Your task to perform on an android device: Open calendar and show me the first week of next month Image 0: 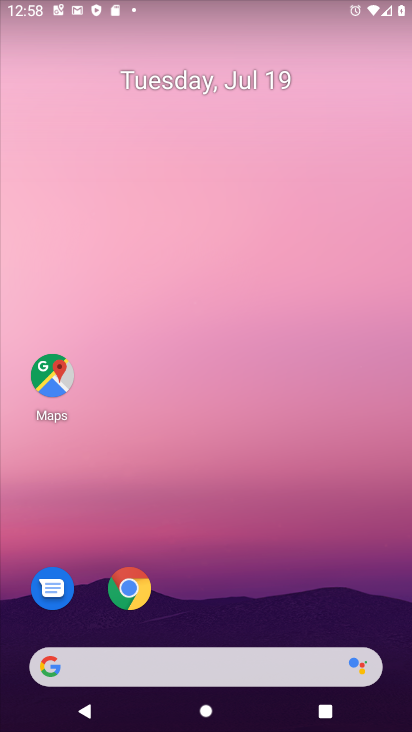
Step 0: drag from (396, 649) to (235, 11)
Your task to perform on an android device: Open calendar and show me the first week of next month Image 1: 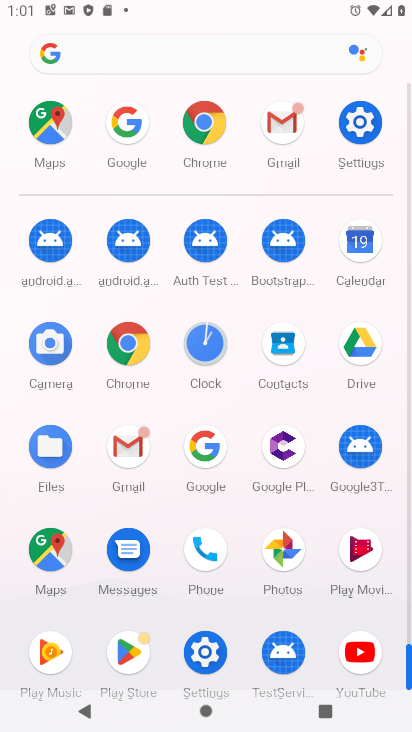
Step 1: click (365, 249)
Your task to perform on an android device: Open calendar and show me the first week of next month Image 2: 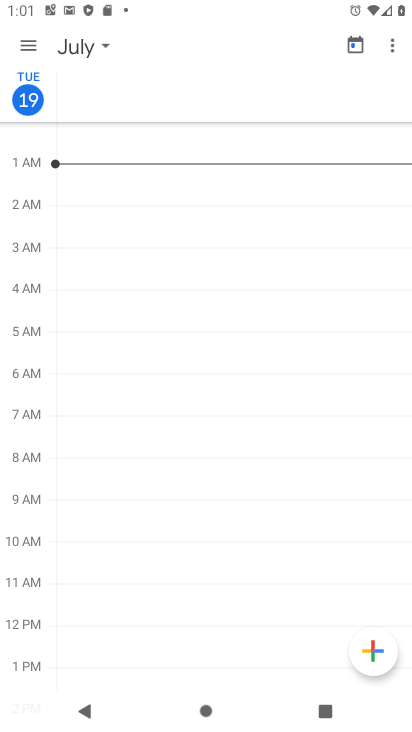
Step 2: click (87, 56)
Your task to perform on an android device: Open calendar and show me the first week of next month Image 3: 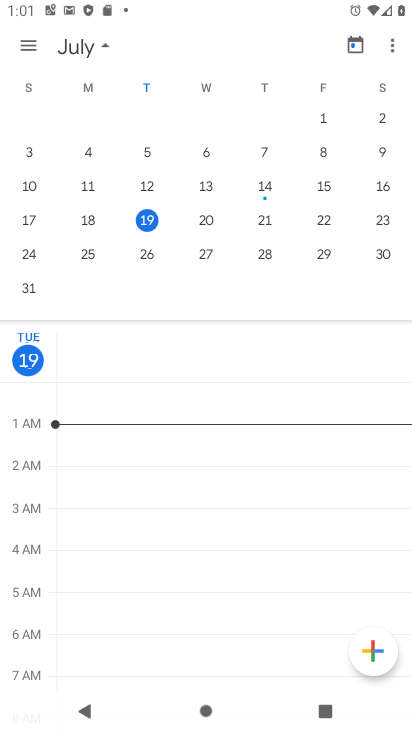
Step 3: drag from (389, 194) to (50, 205)
Your task to perform on an android device: Open calendar and show me the first week of next month Image 4: 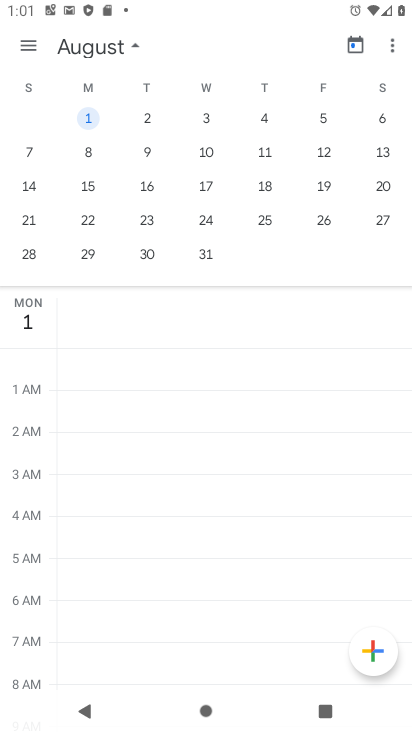
Step 4: click (34, 151)
Your task to perform on an android device: Open calendar and show me the first week of next month Image 5: 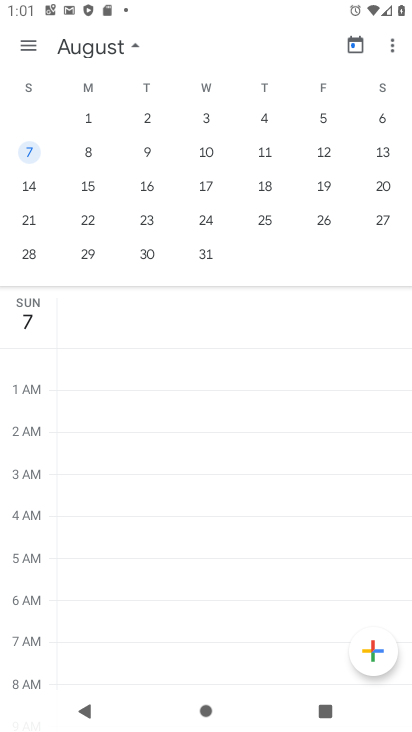
Step 5: task complete